Your task to perform on an android device: What's the weather going to be this weekend? Image 0: 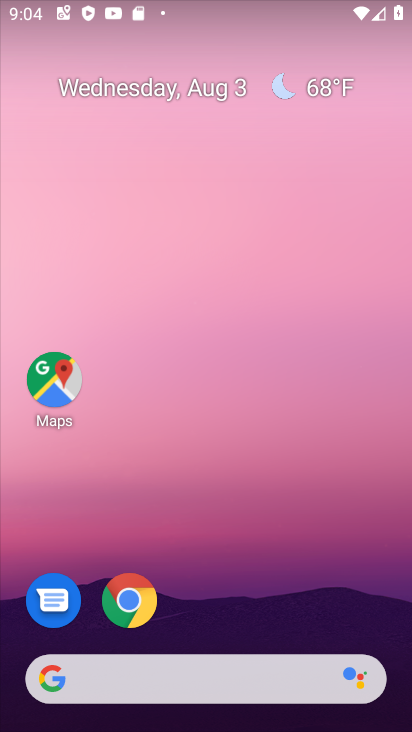
Step 0: click (128, 677)
Your task to perform on an android device: What's the weather going to be this weekend? Image 1: 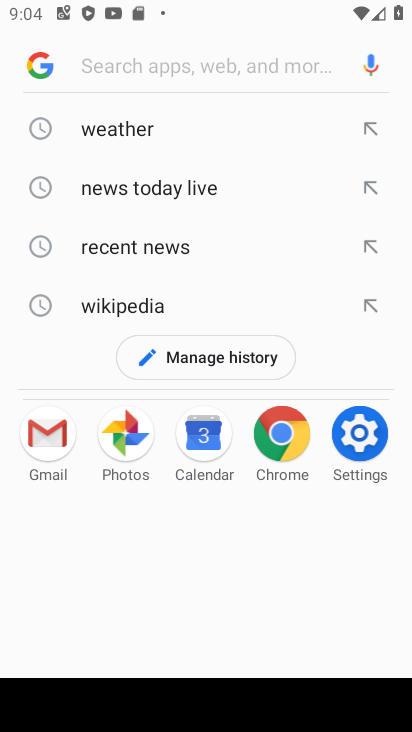
Step 1: click (125, 123)
Your task to perform on an android device: What's the weather going to be this weekend? Image 2: 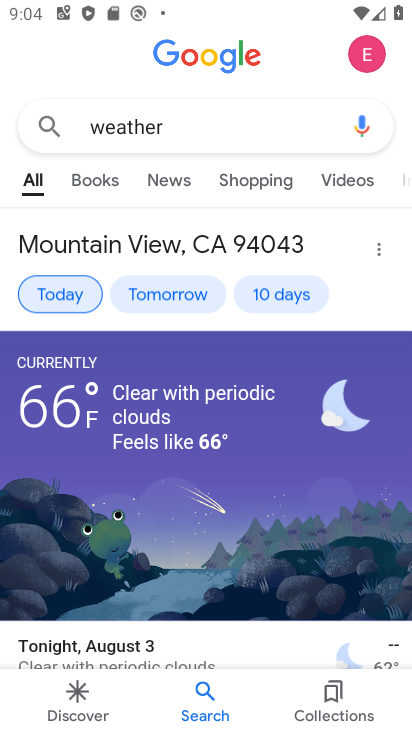
Step 2: click (273, 290)
Your task to perform on an android device: What's the weather going to be this weekend? Image 3: 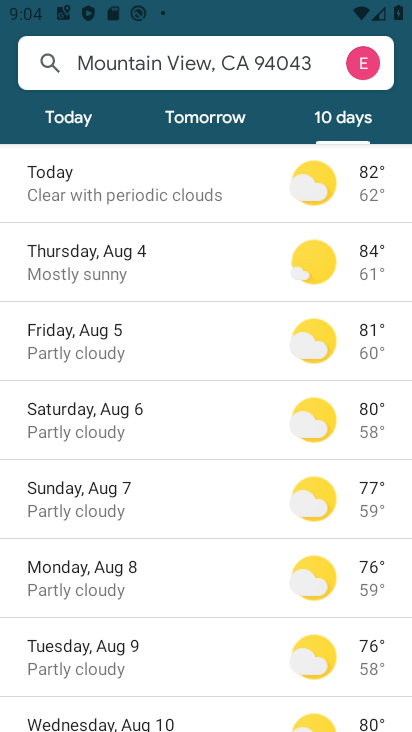
Step 3: task complete